Your task to perform on an android device: open app "WhatsApp Messenger" (install if not already installed) and go to login screen Image 0: 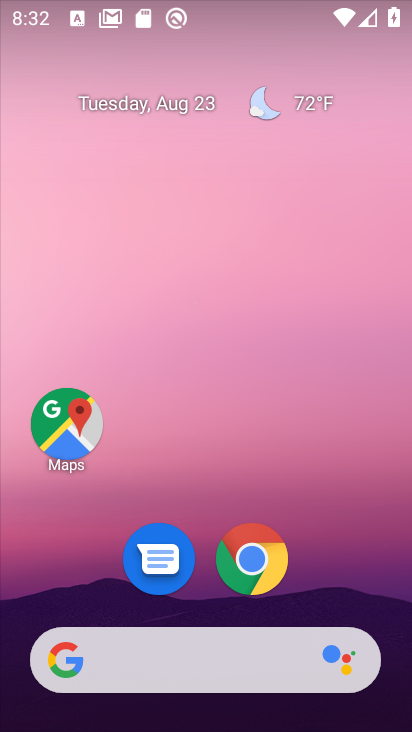
Step 0: drag from (196, 499) to (210, 136)
Your task to perform on an android device: open app "WhatsApp Messenger" (install if not already installed) and go to login screen Image 1: 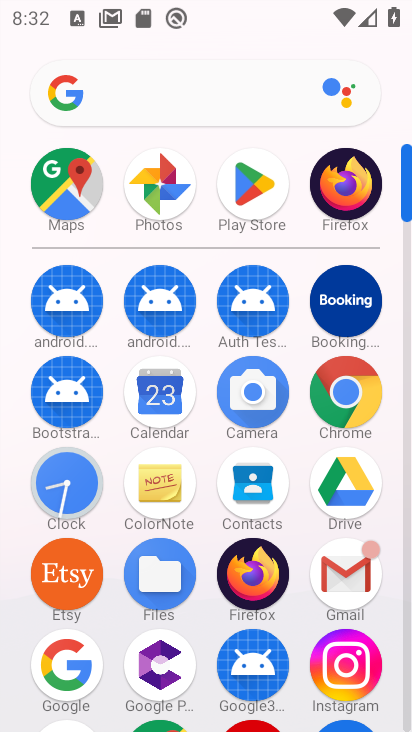
Step 1: click (245, 189)
Your task to perform on an android device: open app "WhatsApp Messenger" (install if not already installed) and go to login screen Image 2: 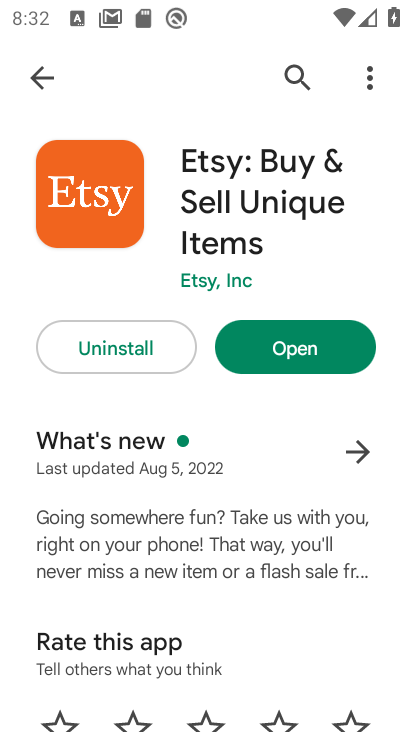
Step 2: click (292, 84)
Your task to perform on an android device: open app "WhatsApp Messenger" (install if not already installed) and go to login screen Image 3: 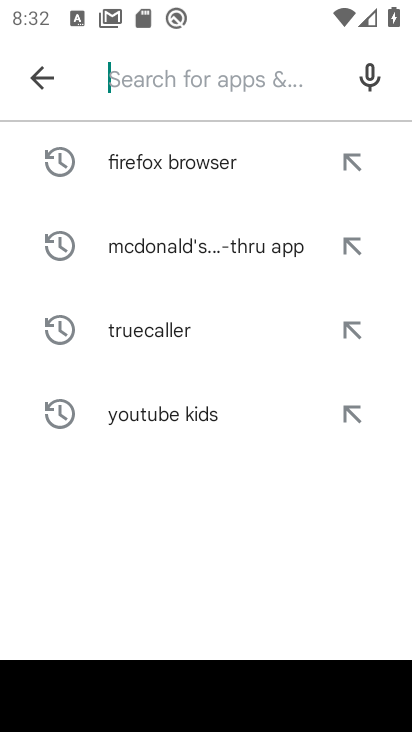
Step 3: type "WhatsApp Messenger"
Your task to perform on an android device: open app "WhatsApp Messenger" (install if not already installed) and go to login screen Image 4: 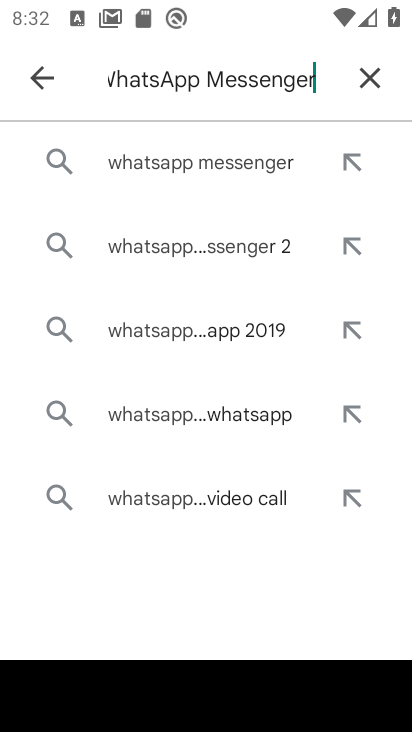
Step 4: type ""
Your task to perform on an android device: open app "WhatsApp Messenger" (install if not already installed) and go to login screen Image 5: 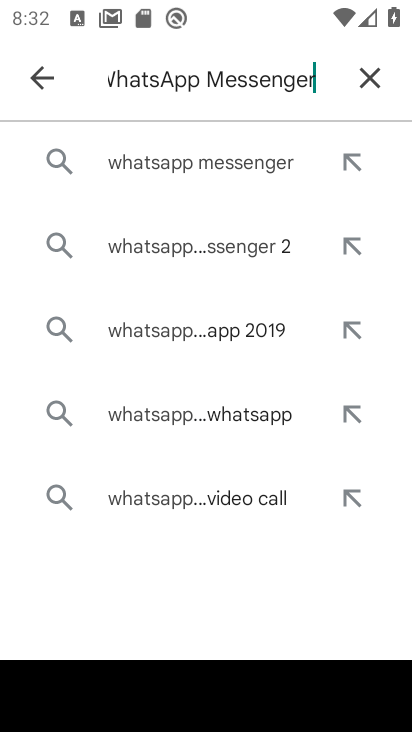
Step 5: click (161, 158)
Your task to perform on an android device: open app "WhatsApp Messenger" (install if not already installed) and go to login screen Image 6: 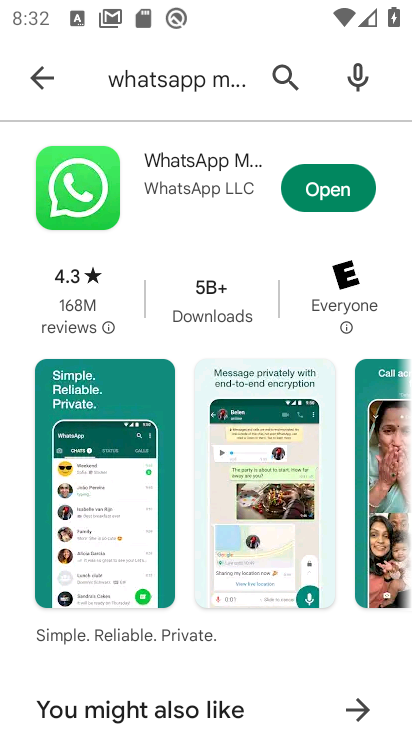
Step 6: click (301, 189)
Your task to perform on an android device: open app "WhatsApp Messenger" (install if not already installed) and go to login screen Image 7: 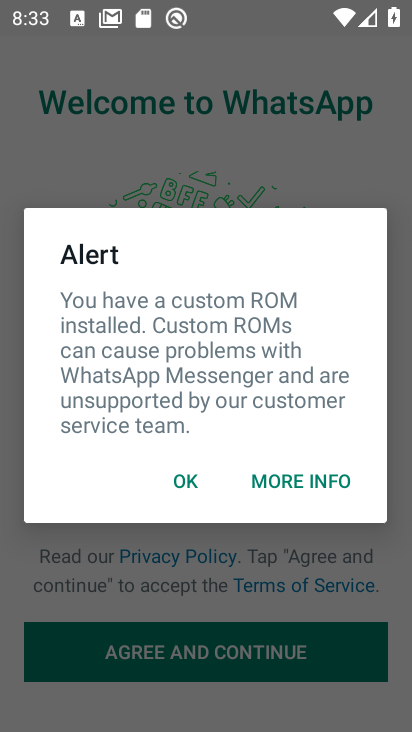
Step 7: click (181, 471)
Your task to perform on an android device: open app "WhatsApp Messenger" (install if not already installed) and go to login screen Image 8: 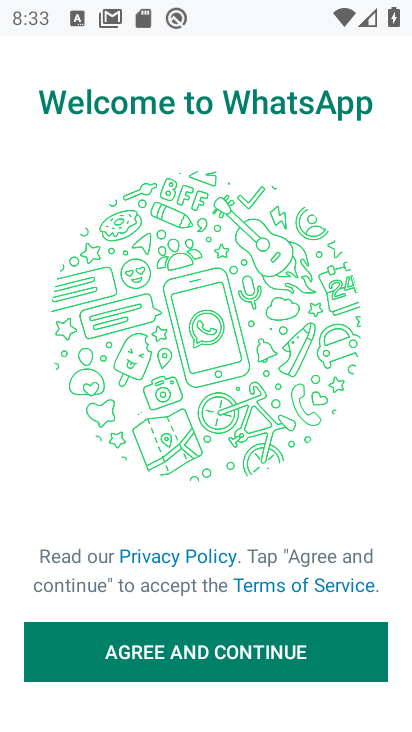
Step 8: task complete